Your task to perform on an android device: Show me popular videos on Youtube Image 0: 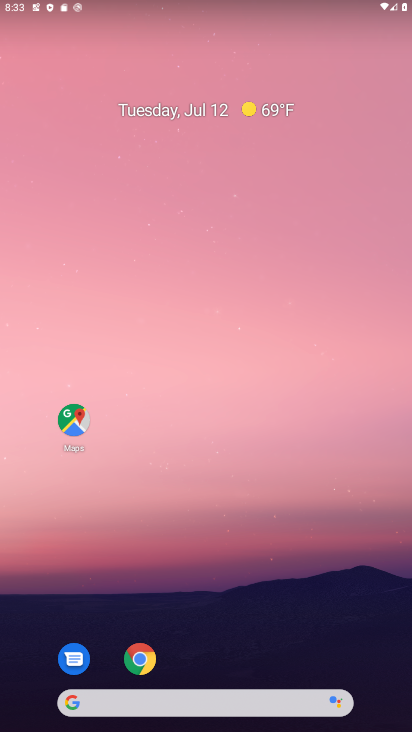
Step 0: drag from (224, 646) to (223, 176)
Your task to perform on an android device: Show me popular videos on Youtube Image 1: 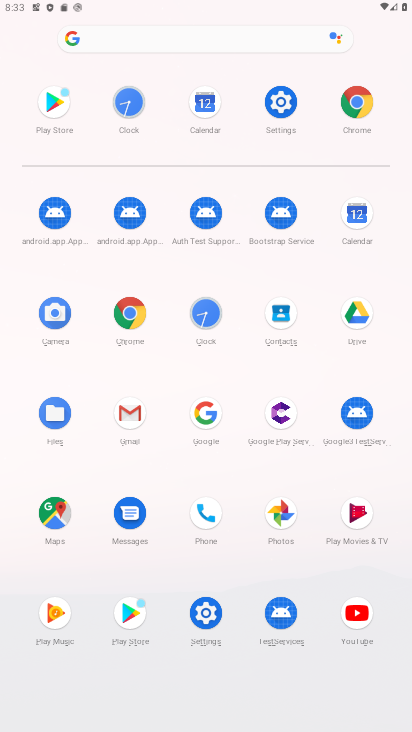
Step 1: click (356, 613)
Your task to perform on an android device: Show me popular videos on Youtube Image 2: 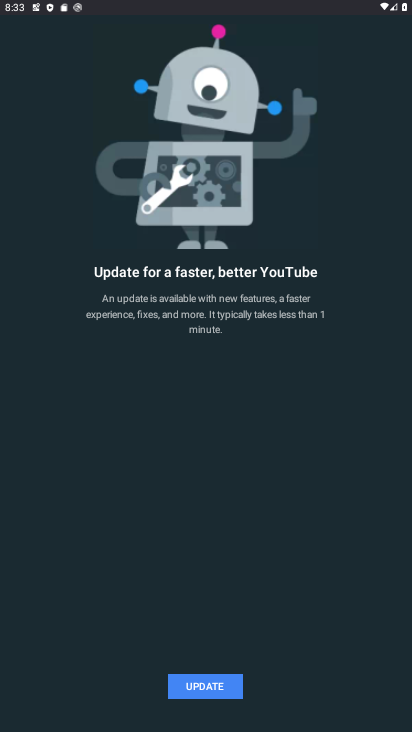
Step 2: task complete